Your task to perform on an android device: Where can I buy a nice beach sandals? Image 0: 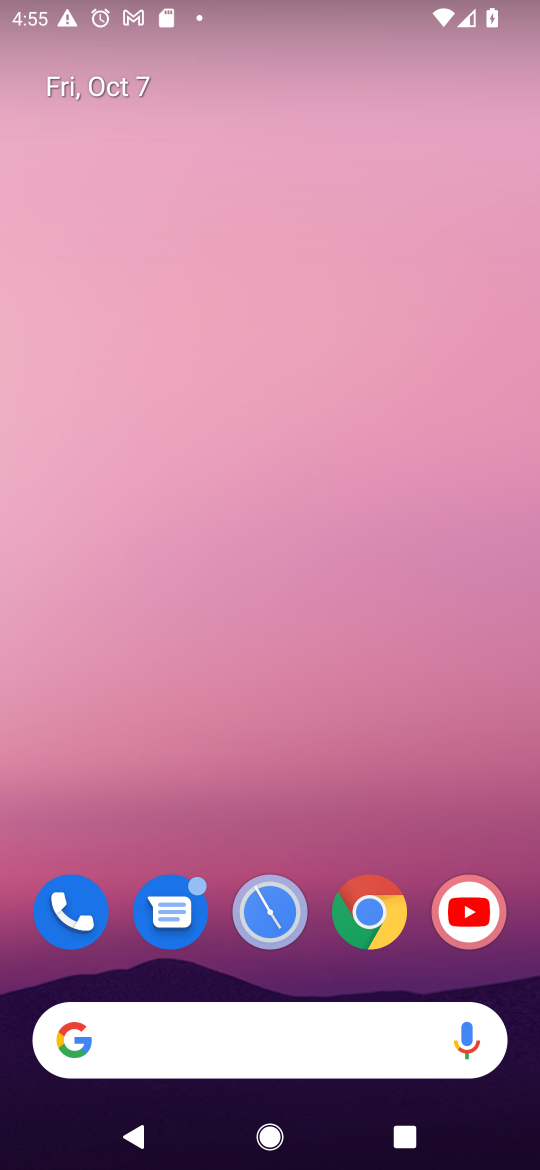
Step 0: drag from (210, 946) to (282, 471)
Your task to perform on an android device: Where can I buy a nice beach sandals? Image 1: 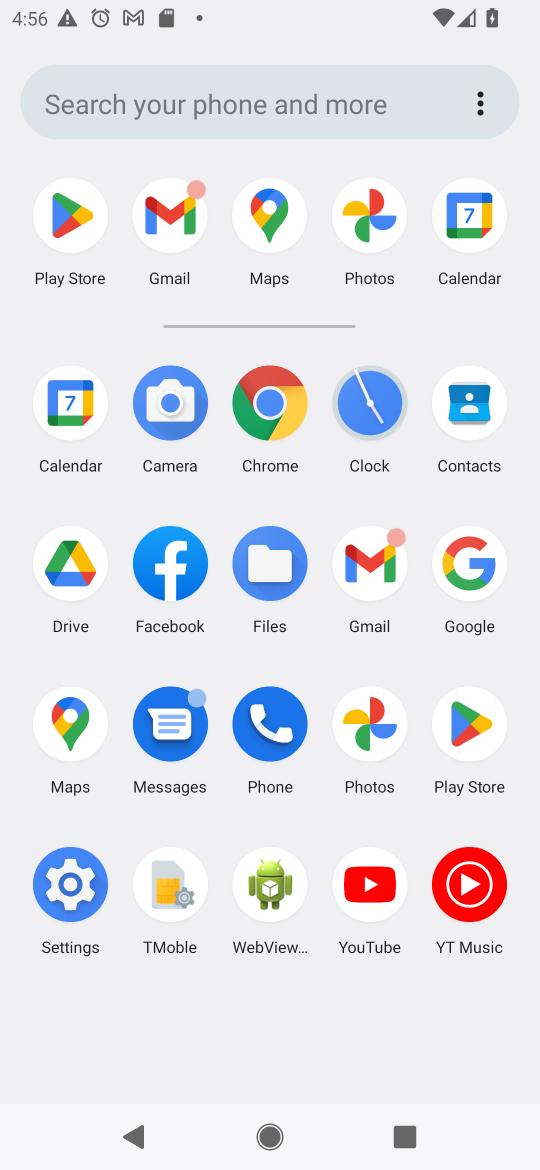
Step 1: click (449, 539)
Your task to perform on an android device: Where can I buy a nice beach sandals? Image 2: 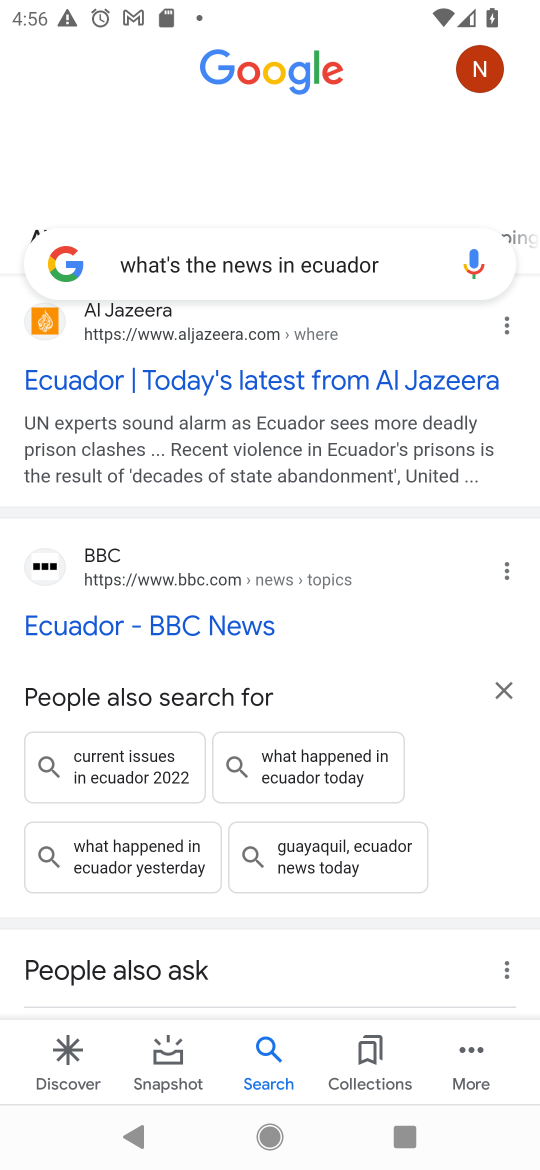
Step 2: click (360, 256)
Your task to perform on an android device: Where can I buy a nice beach sandals? Image 3: 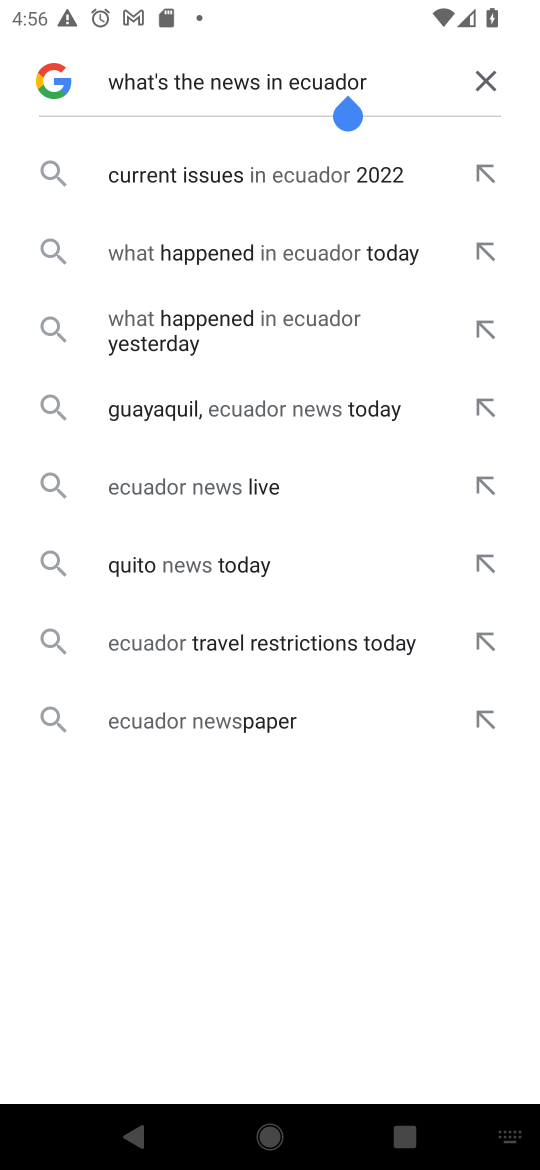
Step 3: click (463, 81)
Your task to perform on an android device: Where can I buy a nice beach sandals? Image 4: 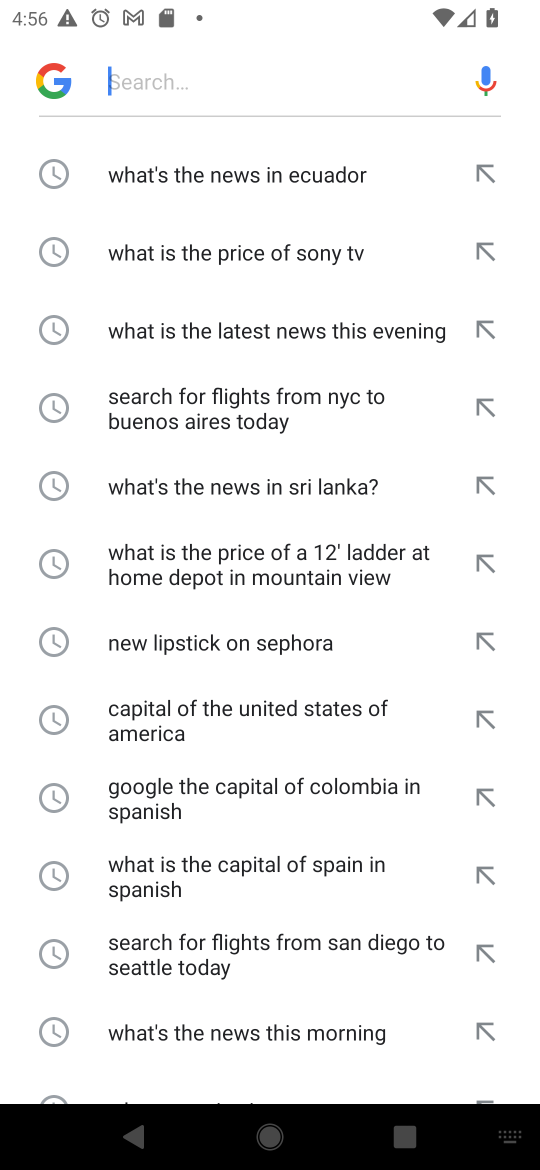
Step 4: click (285, 78)
Your task to perform on an android device: Where can I buy a nice beach sandals? Image 5: 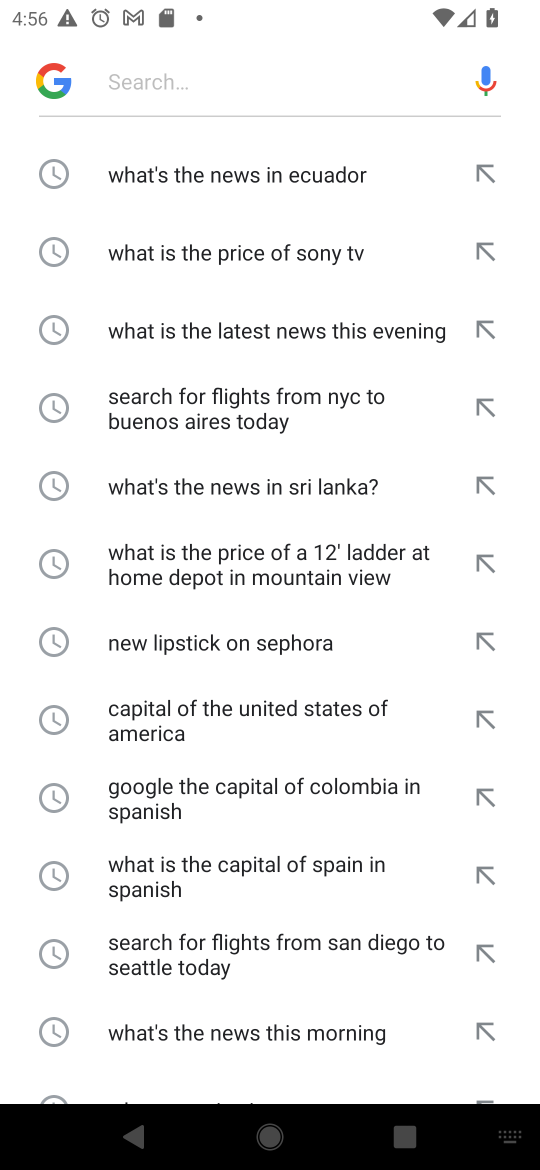
Step 5: type "Where can I buy a nice beach sandals? "
Your task to perform on an android device: Where can I buy a nice beach sandals? Image 6: 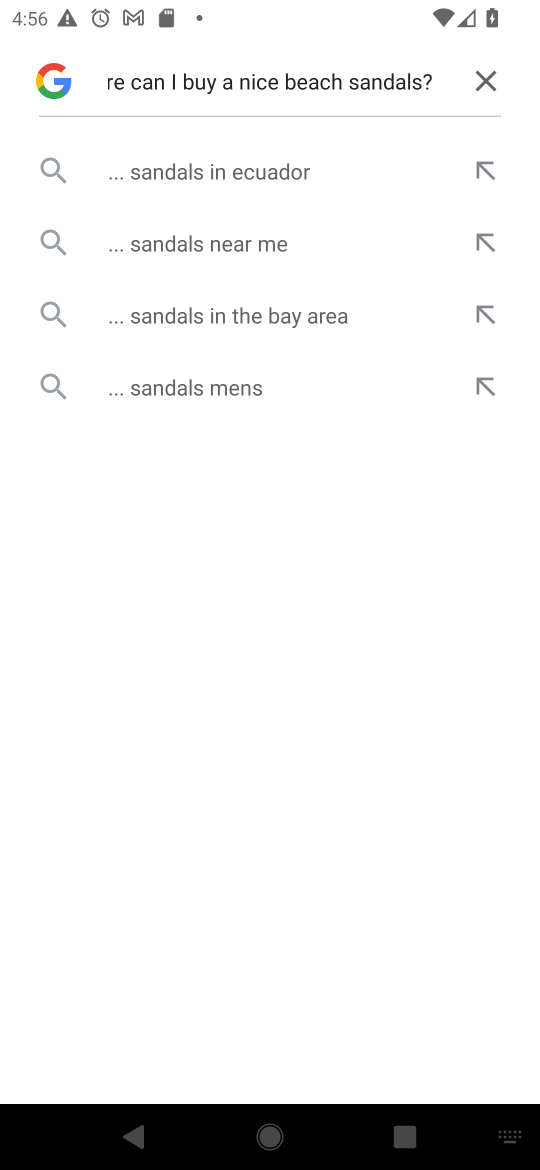
Step 6: click (216, 233)
Your task to perform on an android device: Where can I buy a nice beach sandals? Image 7: 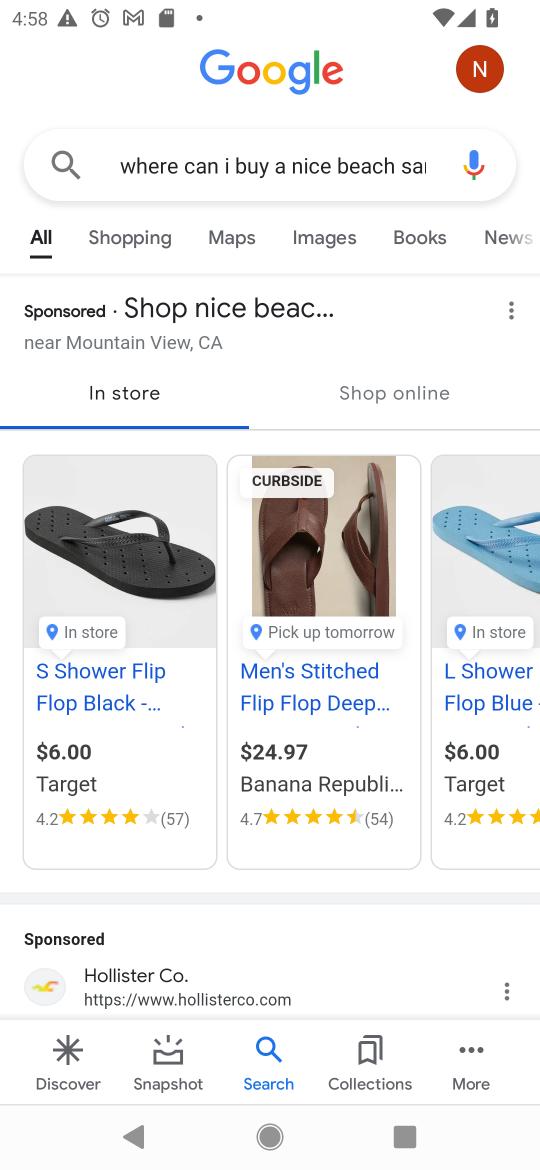
Step 7: task complete